Your task to perform on an android device: Open display settings Image 0: 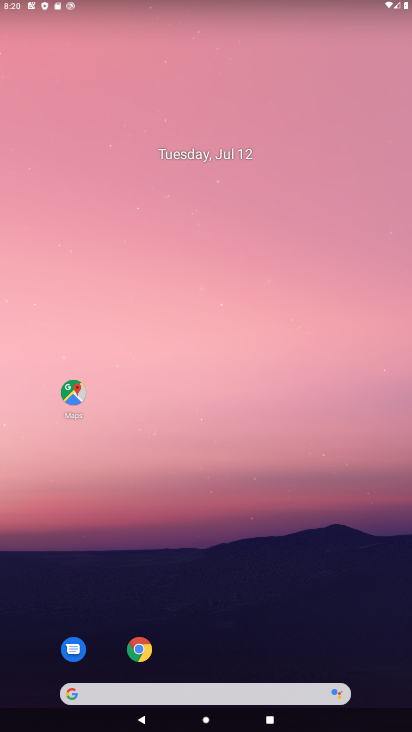
Step 0: drag from (190, 666) to (217, 135)
Your task to perform on an android device: Open display settings Image 1: 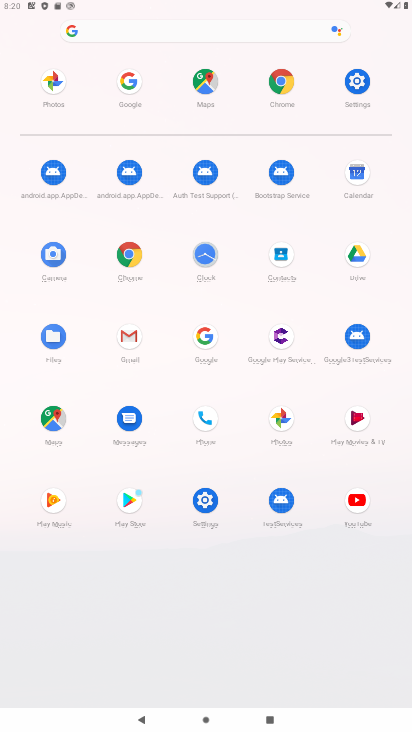
Step 1: click (355, 81)
Your task to perform on an android device: Open display settings Image 2: 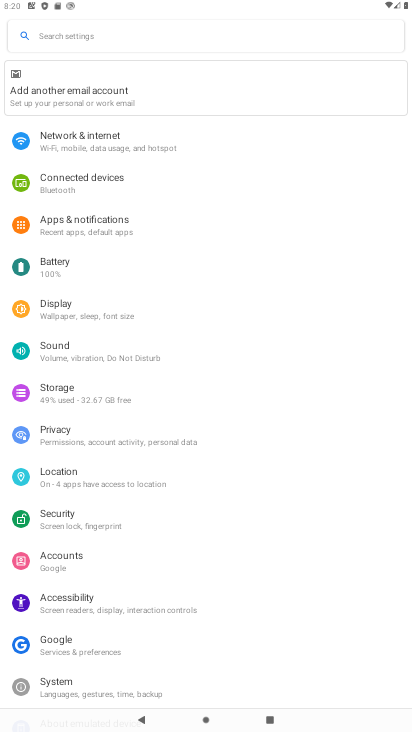
Step 2: click (58, 295)
Your task to perform on an android device: Open display settings Image 3: 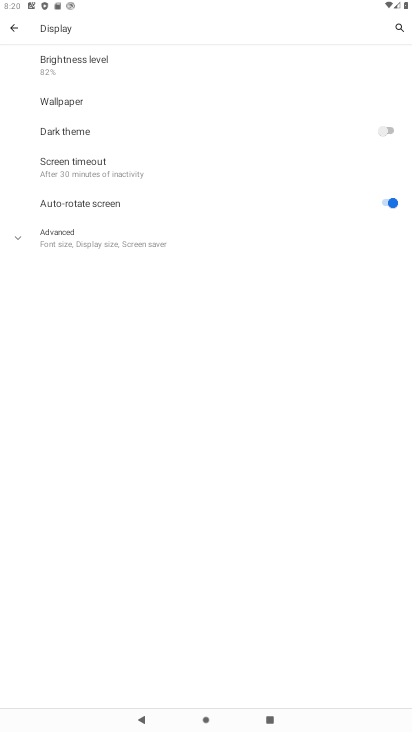
Step 3: task complete